Your task to perform on an android device: What's the weather going to be this weekend? Image 0: 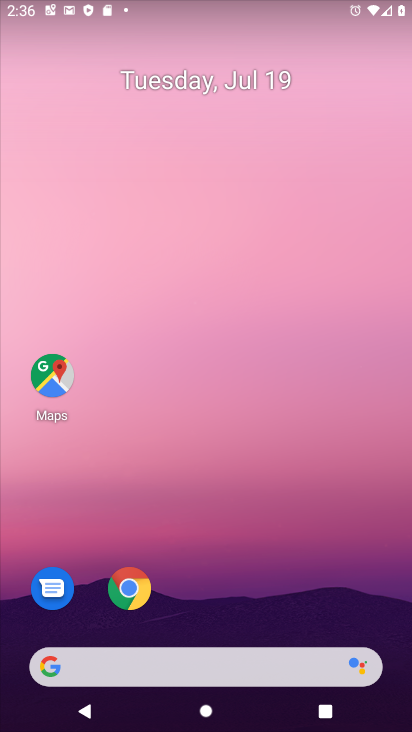
Step 0: drag from (383, 644) to (247, 37)
Your task to perform on an android device: What's the weather going to be this weekend? Image 1: 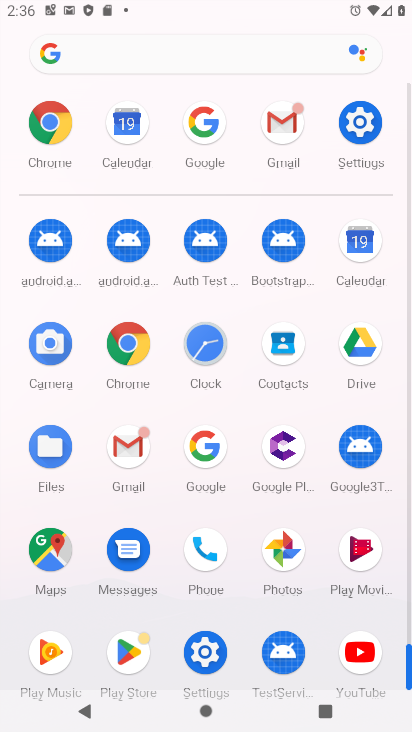
Step 1: click (198, 450)
Your task to perform on an android device: What's the weather going to be this weekend? Image 2: 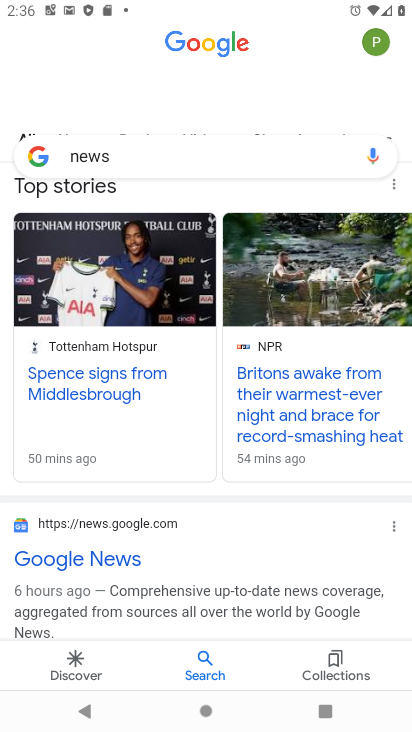
Step 2: press back button
Your task to perform on an android device: What's the weather going to be this weekend? Image 3: 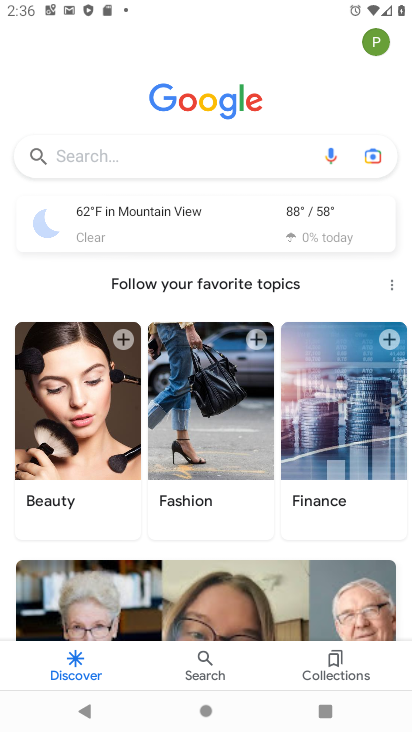
Step 3: click (121, 171)
Your task to perform on an android device: What's the weather going to be this weekend? Image 4: 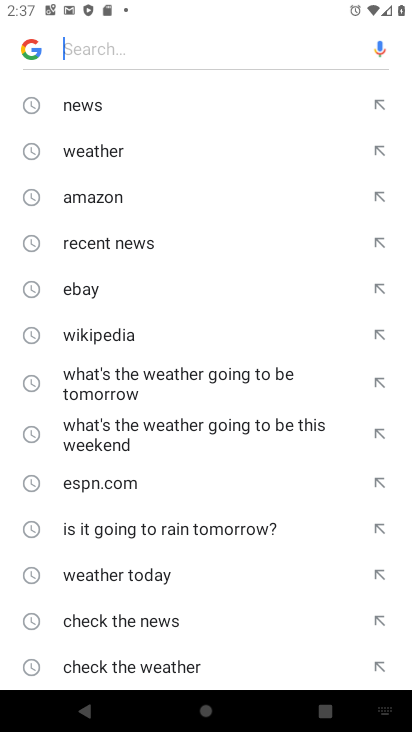
Step 4: click (145, 439)
Your task to perform on an android device: What's the weather going to be this weekend? Image 5: 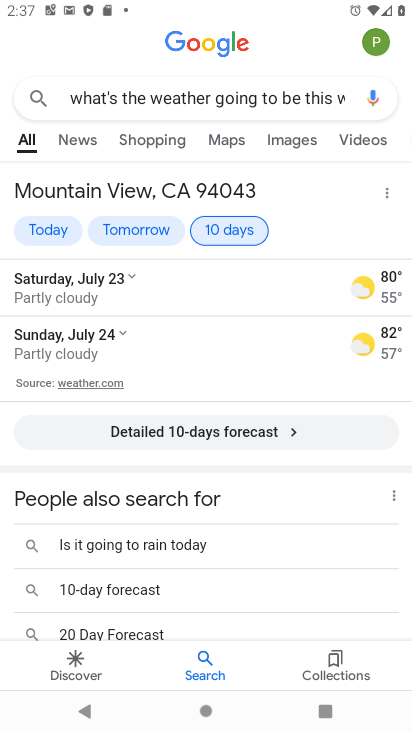
Step 5: task complete